Your task to perform on an android device: Open Youtube and go to "Your channel" Image 0: 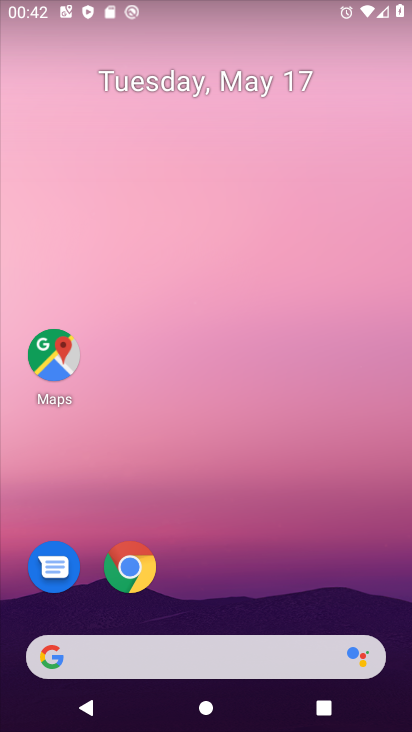
Step 0: drag from (217, 536) to (75, 17)
Your task to perform on an android device: Open Youtube and go to "Your channel" Image 1: 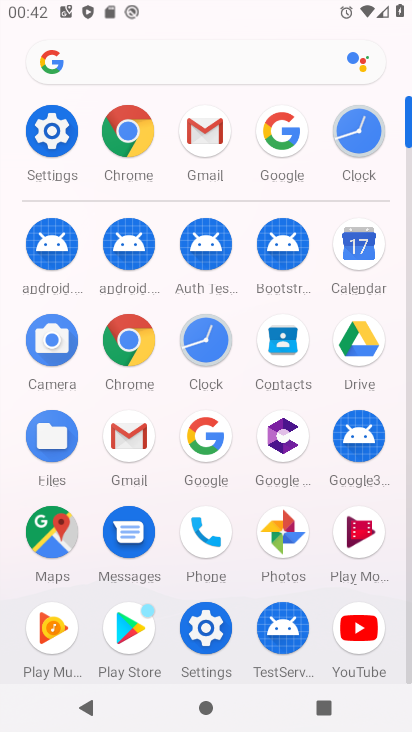
Step 1: click (347, 637)
Your task to perform on an android device: Open Youtube and go to "Your channel" Image 2: 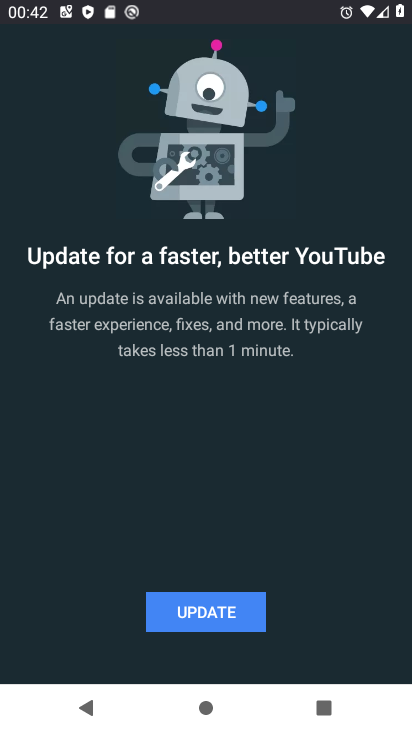
Step 2: click (215, 620)
Your task to perform on an android device: Open Youtube and go to "Your channel" Image 3: 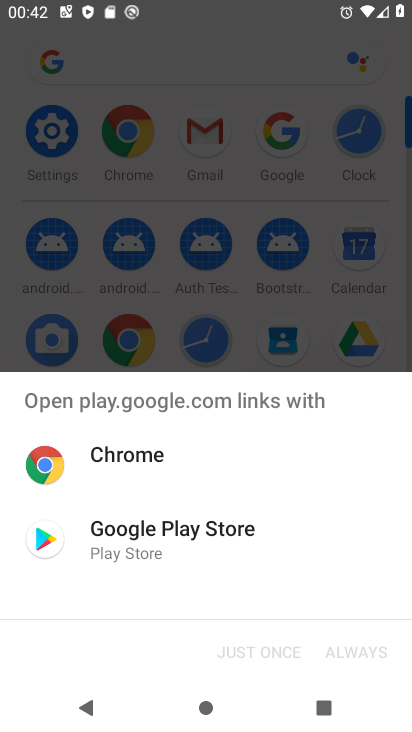
Step 3: click (121, 532)
Your task to perform on an android device: Open Youtube and go to "Your channel" Image 4: 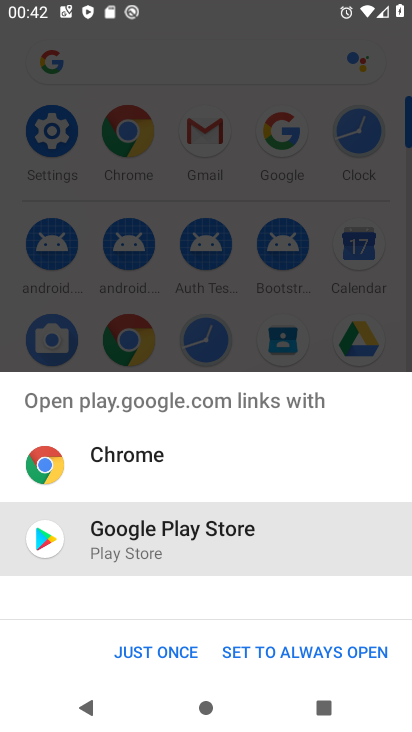
Step 4: click (192, 651)
Your task to perform on an android device: Open Youtube and go to "Your channel" Image 5: 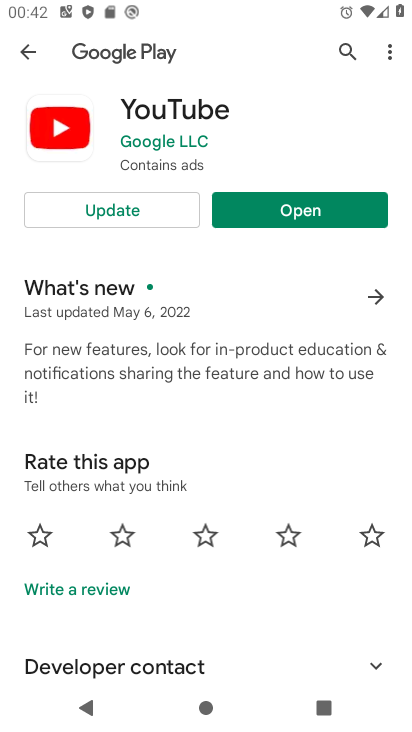
Step 5: click (121, 212)
Your task to perform on an android device: Open Youtube and go to "Your channel" Image 6: 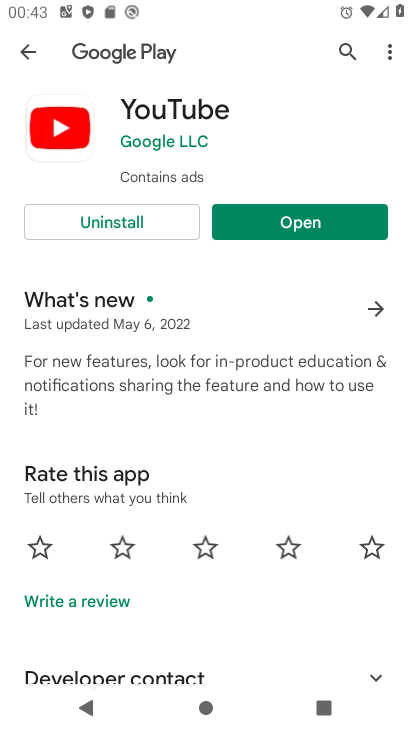
Step 6: click (261, 222)
Your task to perform on an android device: Open Youtube and go to "Your channel" Image 7: 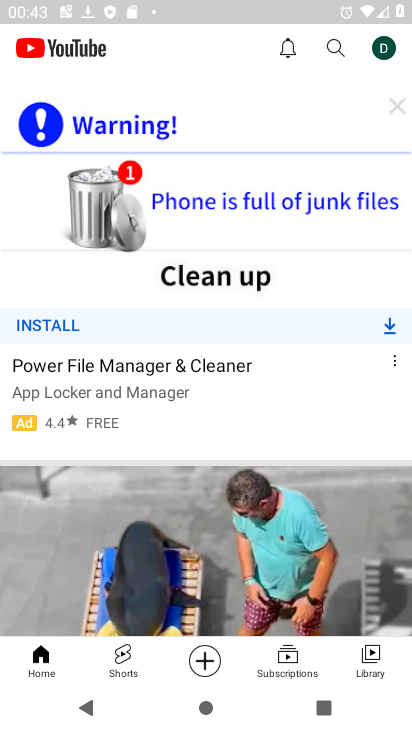
Step 7: click (387, 40)
Your task to perform on an android device: Open Youtube and go to "Your channel" Image 8: 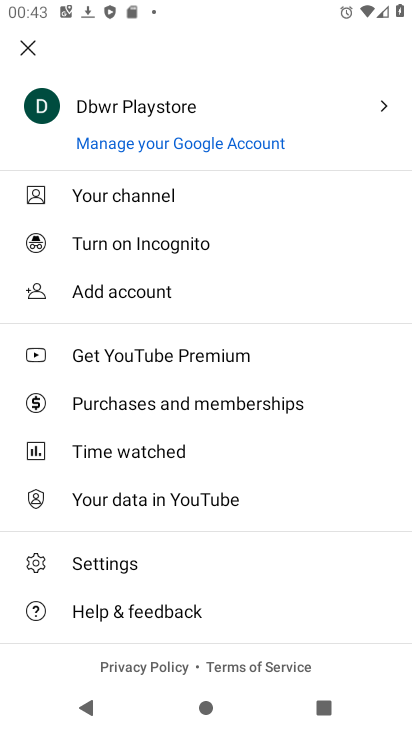
Step 8: click (116, 192)
Your task to perform on an android device: Open Youtube and go to "Your channel" Image 9: 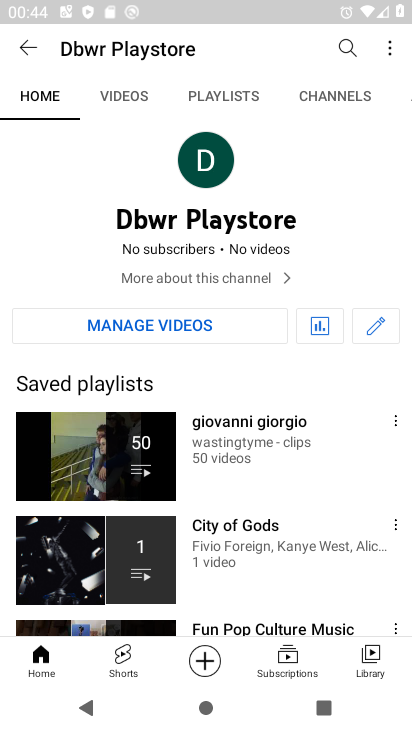
Step 9: task complete